Your task to perform on an android device: toggle sleep mode Image 0: 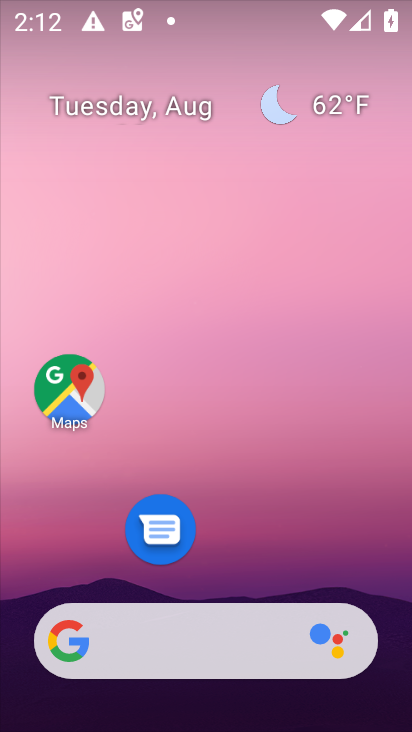
Step 0: drag from (288, 594) to (294, 249)
Your task to perform on an android device: toggle sleep mode Image 1: 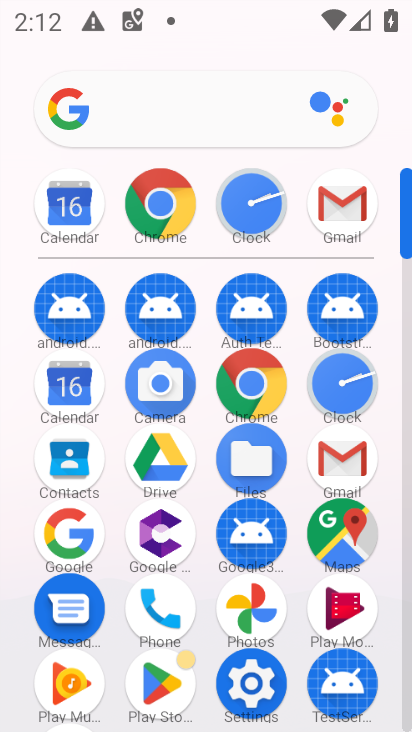
Step 1: click (272, 675)
Your task to perform on an android device: toggle sleep mode Image 2: 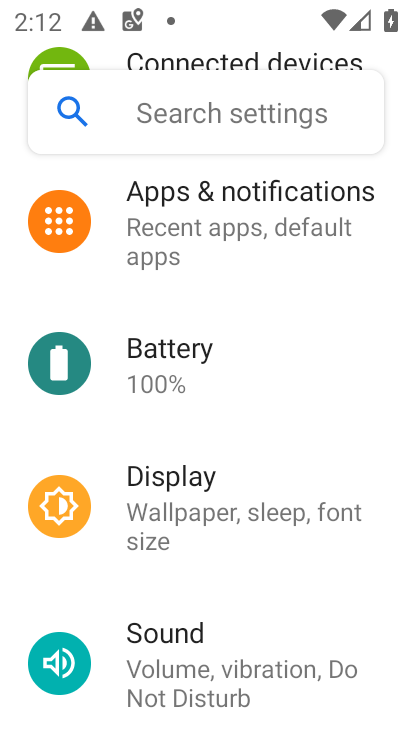
Step 2: click (253, 556)
Your task to perform on an android device: toggle sleep mode Image 3: 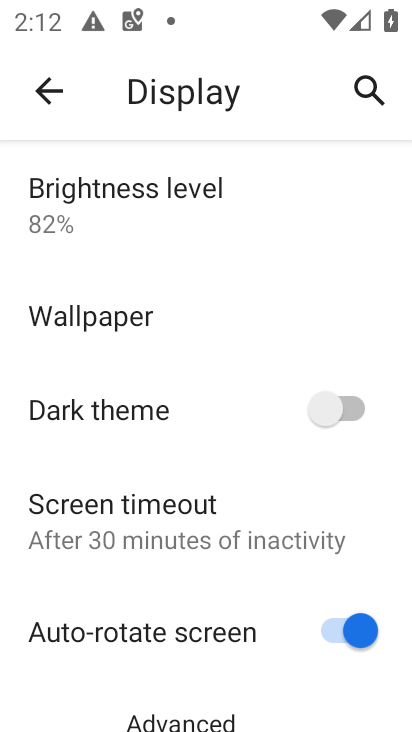
Step 3: drag from (260, 515) to (269, 373)
Your task to perform on an android device: toggle sleep mode Image 4: 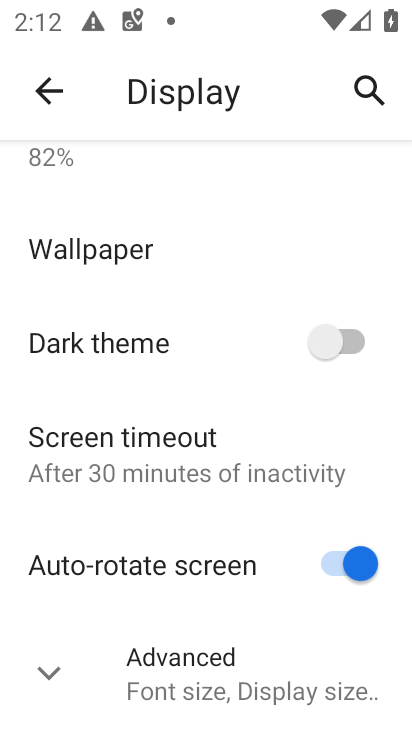
Step 4: drag from (243, 644) to (258, 429)
Your task to perform on an android device: toggle sleep mode Image 5: 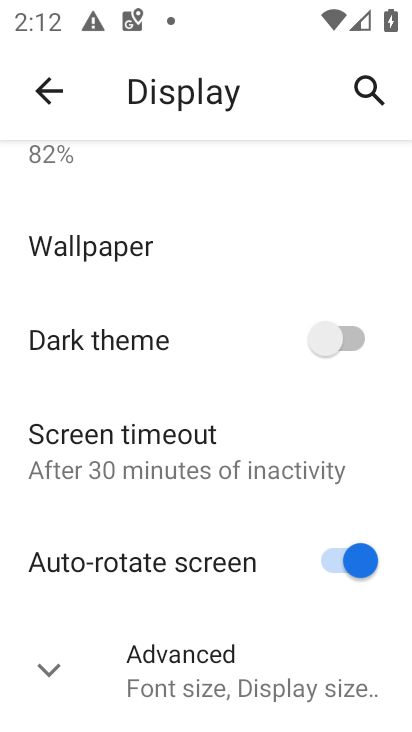
Step 5: click (240, 668)
Your task to perform on an android device: toggle sleep mode Image 6: 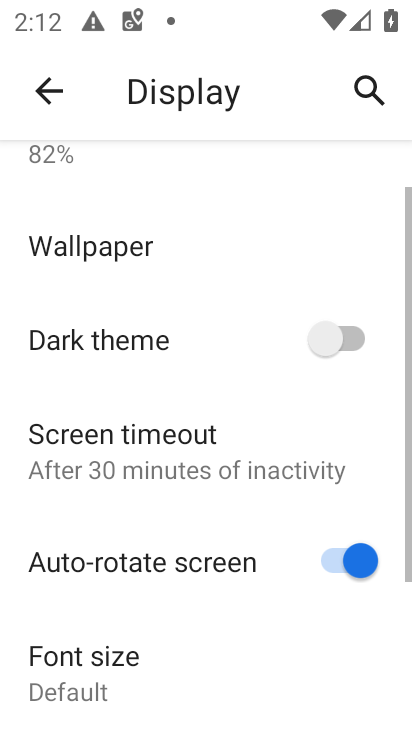
Step 6: task complete